Your task to perform on an android device: allow cookies in the chrome app Image 0: 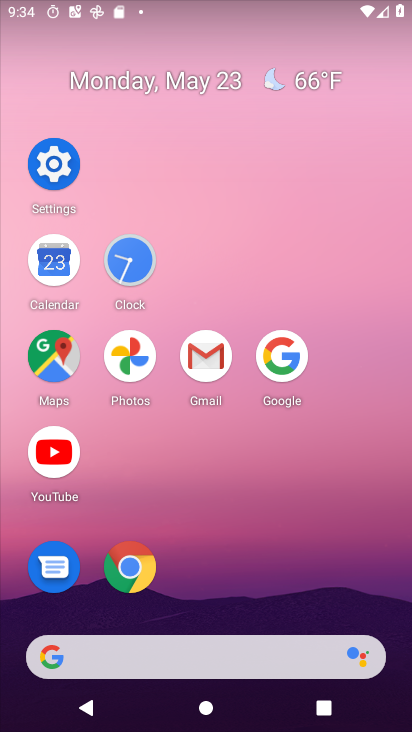
Step 0: click (142, 567)
Your task to perform on an android device: allow cookies in the chrome app Image 1: 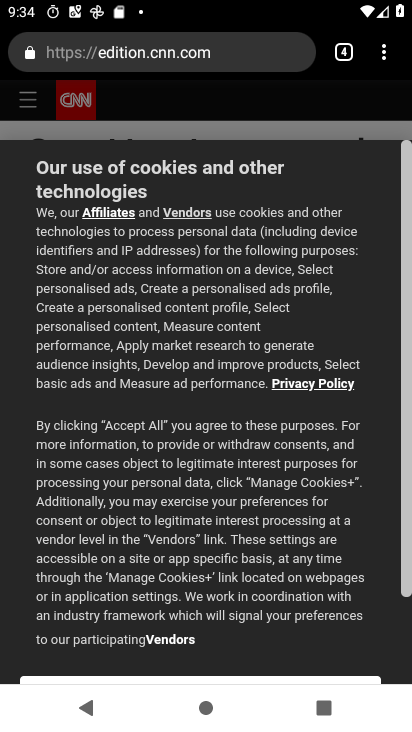
Step 1: click (379, 56)
Your task to perform on an android device: allow cookies in the chrome app Image 2: 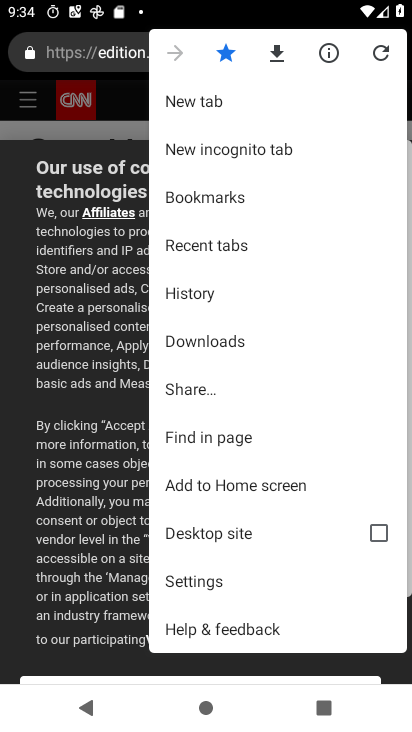
Step 2: click (220, 571)
Your task to perform on an android device: allow cookies in the chrome app Image 3: 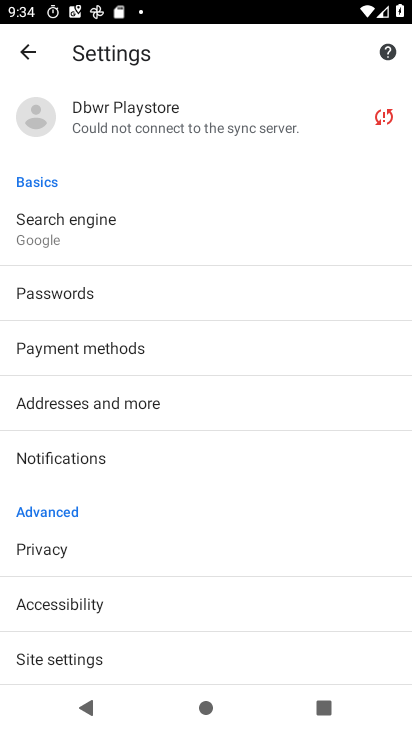
Step 3: drag from (215, 526) to (275, 185)
Your task to perform on an android device: allow cookies in the chrome app Image 4: 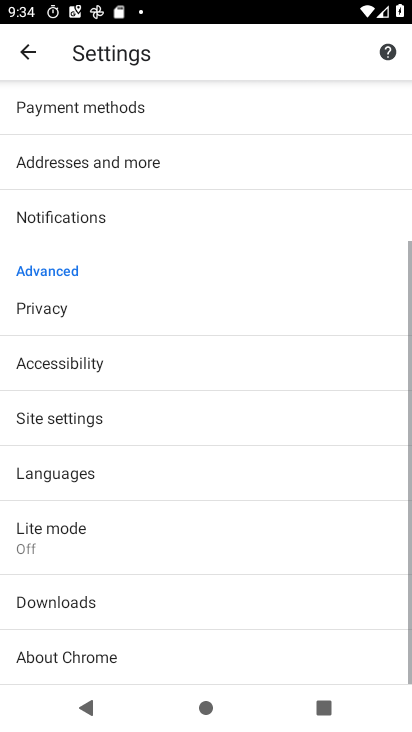
Step 4: drag from (212, 635) to (256, 207)
Your task to perform on an android device: allow cookies in the chrome app Image 5: 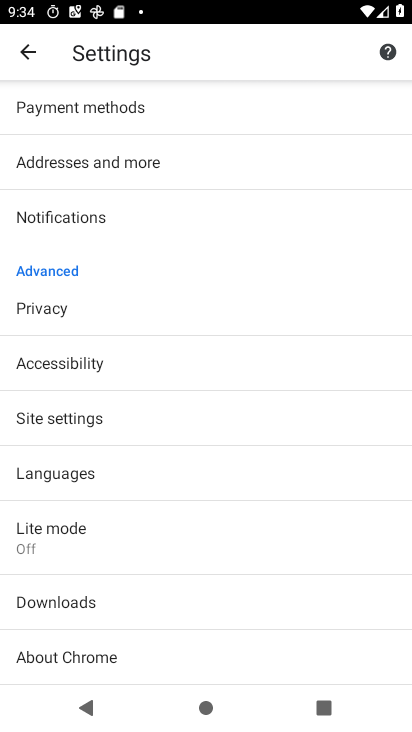
Step 5: click (192, 409)
Your task to perform on an android device: allow cookies in the chrome app Image 6: 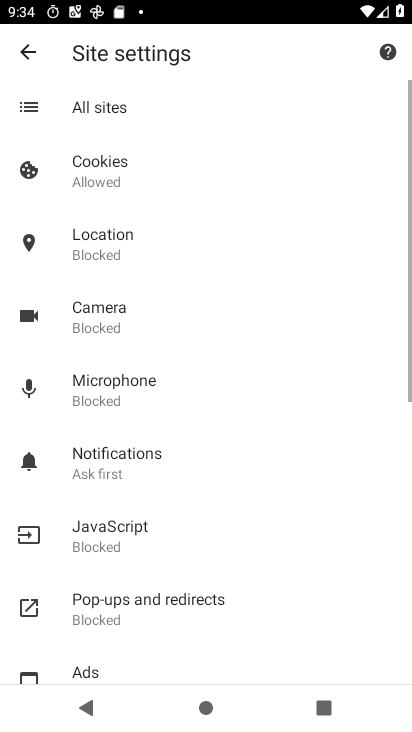
Step 6: click (229, 182)
Your task to perform on an android device: allow cookies in the chrome app Image 7: 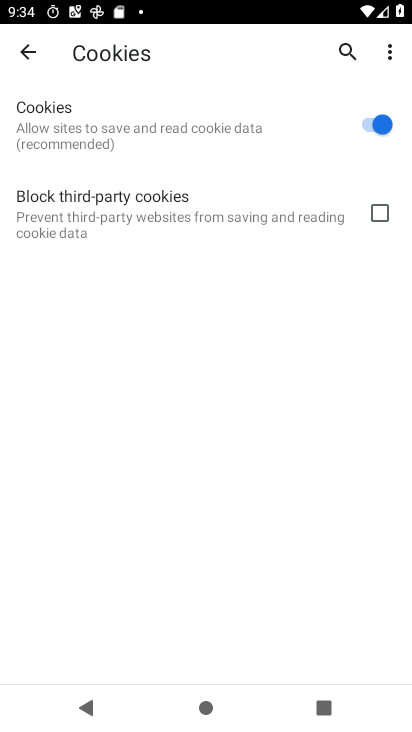
Step 7: task complete